Your task to perform on an android device: Go to privacy settings Image 0: 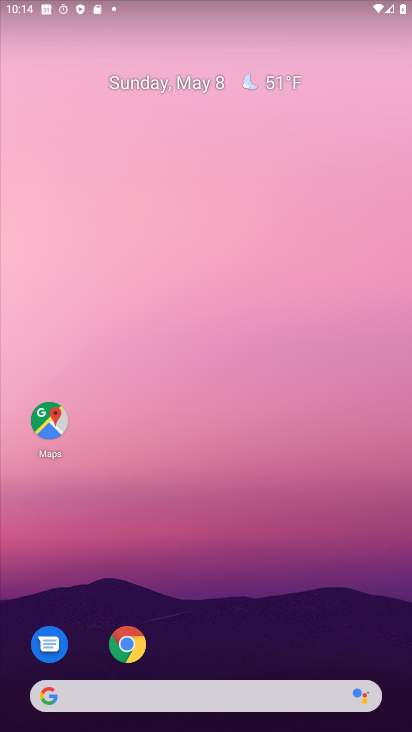
Step 0: drag from (208, 601) to (282, 178)
Your task to perform on an android device: Go to privacy settings Image 1: 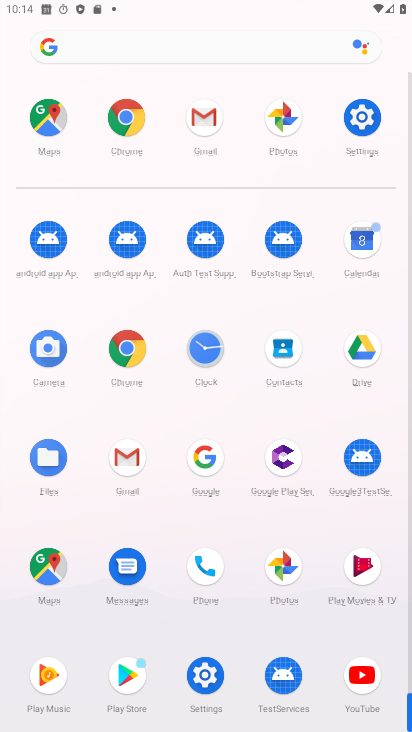
Step 1: click (366, 140)
Your task to perform on an android device: Go to privacy settings Image 2: 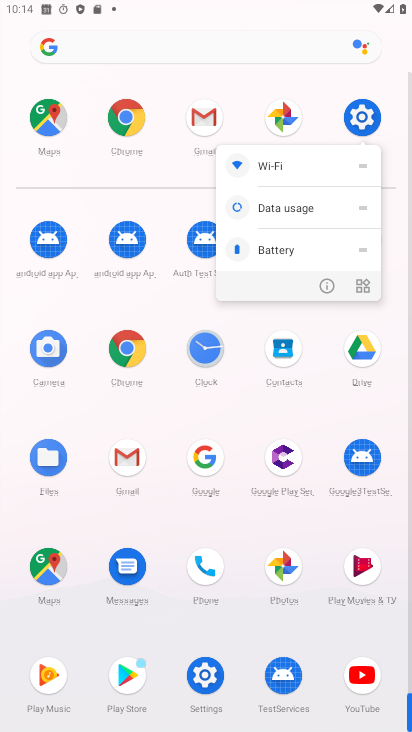
Step 2: click (329, 293)
Your task to perform on an android device: Go to privacy settings Image 3: 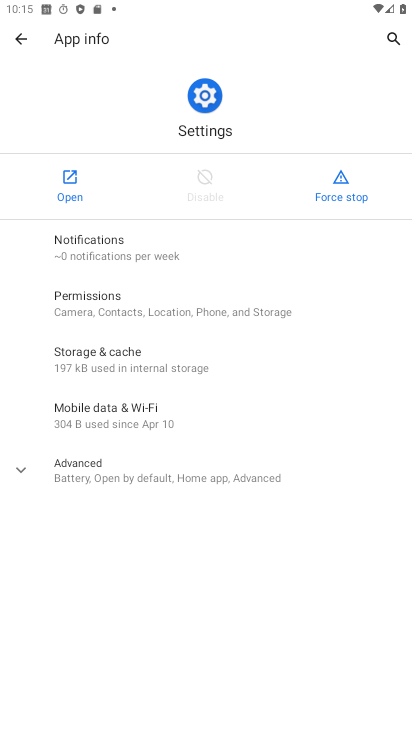
Step 3: click (86, 184)
Your task to perform on an android device: Go to privacy settings Image 4: 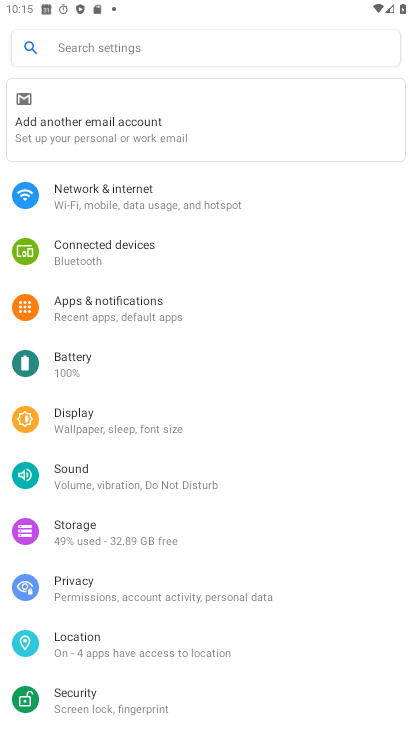
Step 4: click (81, 580)
Your task to perform on an android device: Go to privacy settings Image 5: 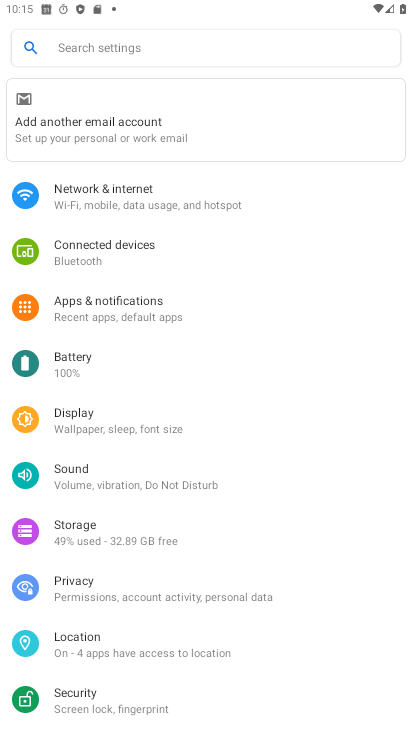
Step 5: click (80, 581)
Your task to perform on an android device: Go to privacy settings Image 6: 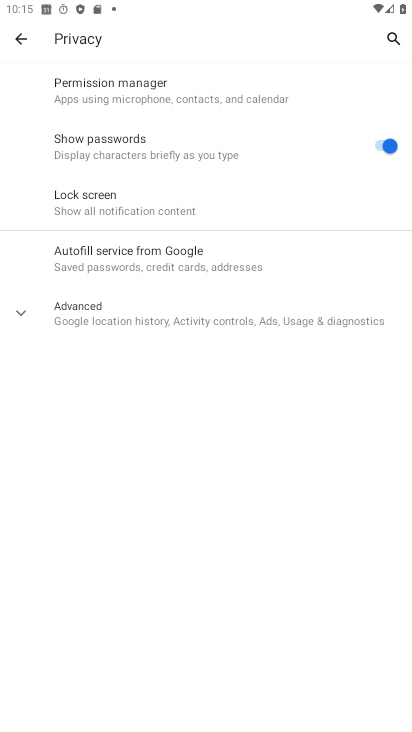
Step 6: task complete